Your task to perform on an android device: Open ESPN.com Image 0: 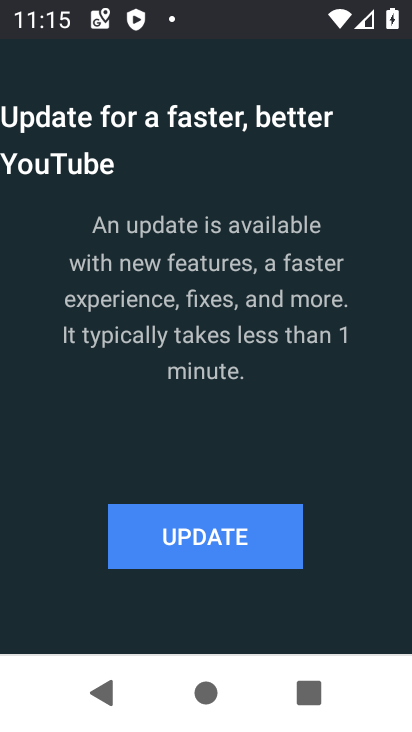
Step 0: press home button
Your task to perform on an android device: Open ESPN.com Image 1: 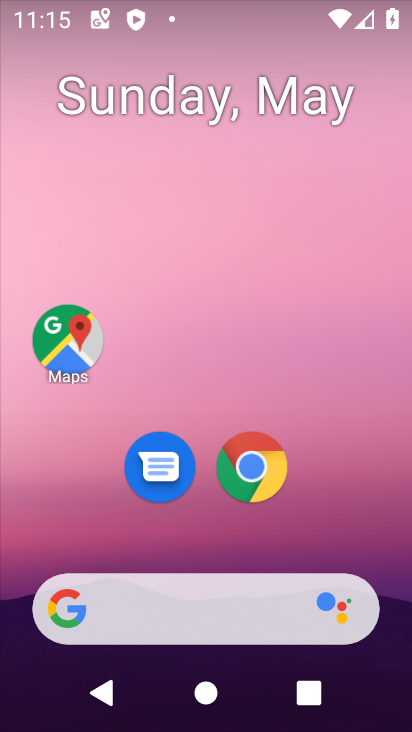
Step 1: click (251, 471)
Your task to perform on an android device: Open ESPN.com Image 2: 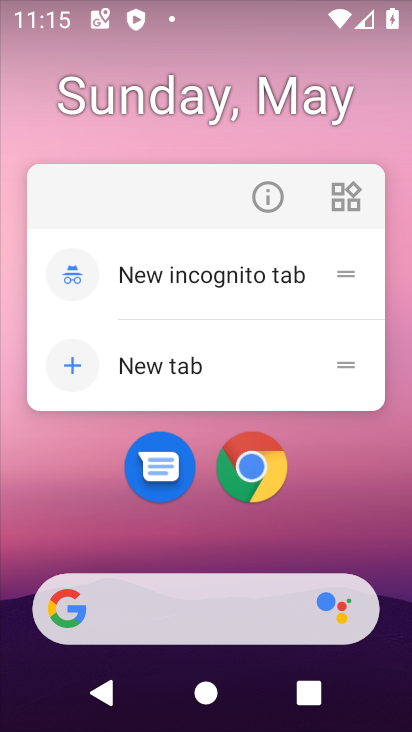
Step 2: click (251, 471)
Your task to perform on an android device: Open ESPN.com Image 3: 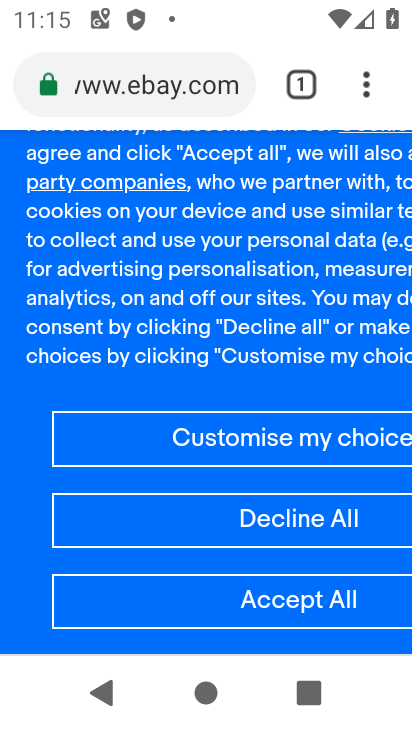
Step 3: click (97, 88)
Your task to perform on an android device: Open ESPN.com Image 4: 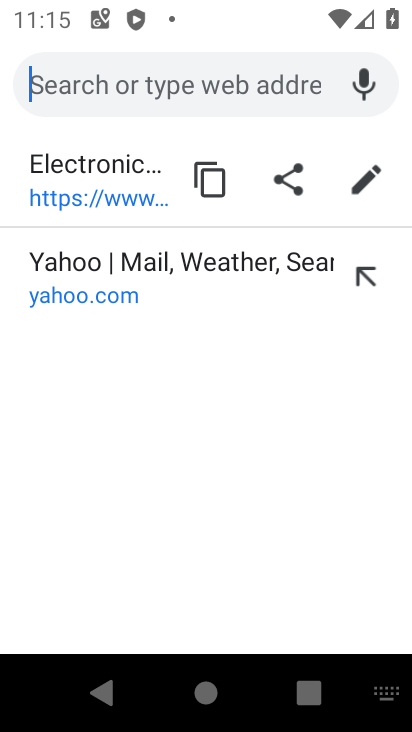
Step 4: type "espn.com"
Your task to perform on an android device: Open ESPN.com Image 5: 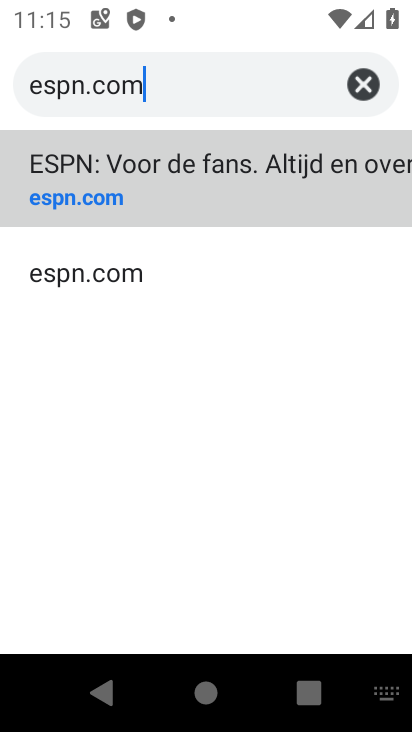
Step 5: click (78, 198)
Your task to perform on an android device: Open ESPN.com Image 6: 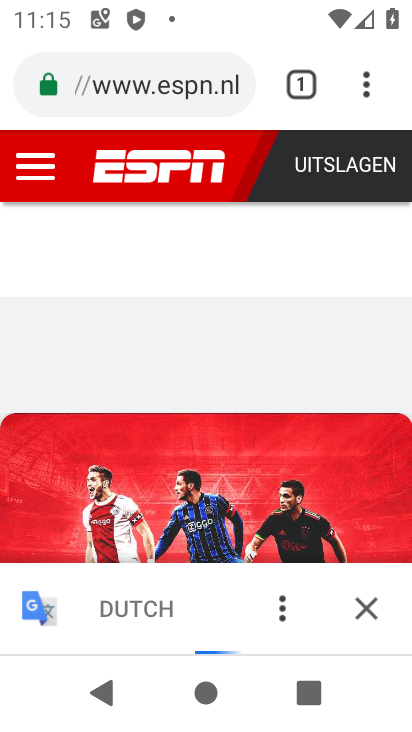
Step 6: task complete